Your task to perform on an android device: turn on javascript in the chrome app Image 0: 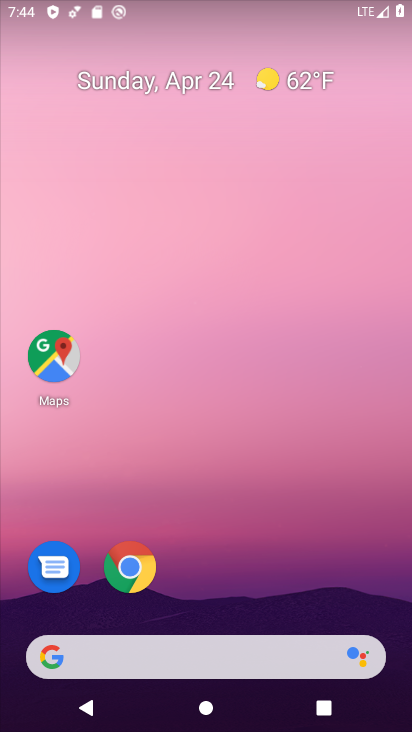
Step 0: click (128, 569)
Your task to perform on an android device: turn on javascript in the chrome app Image 1: 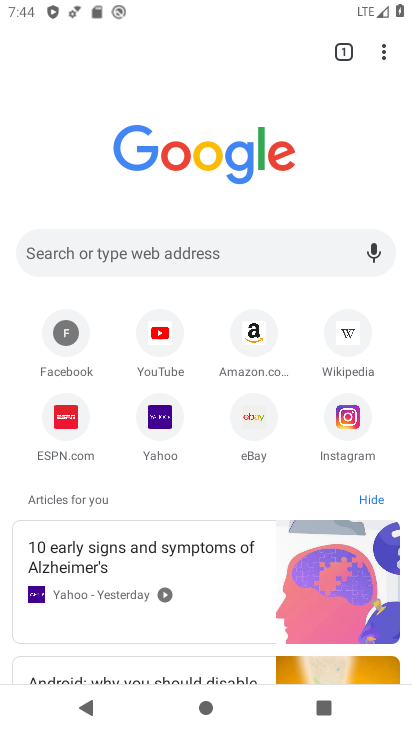
Step 1: click (384, 48)
Your task to perform on an android device: turn on javascript in the chrome app Image 2: 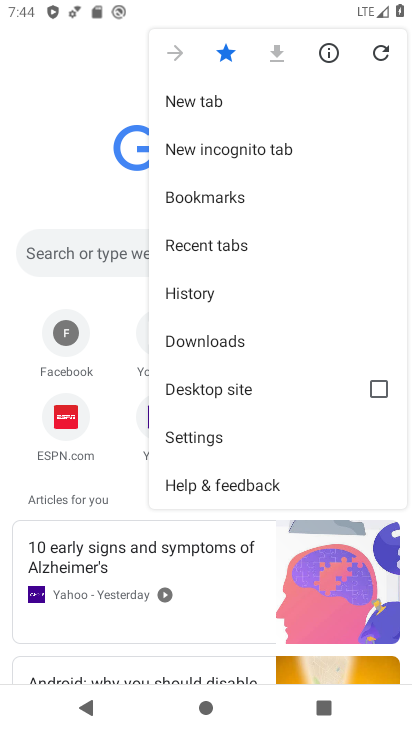
Step 2: click (204, 437)
Your task to perform on an android device: turn on javascript in the chrome app Image 3: 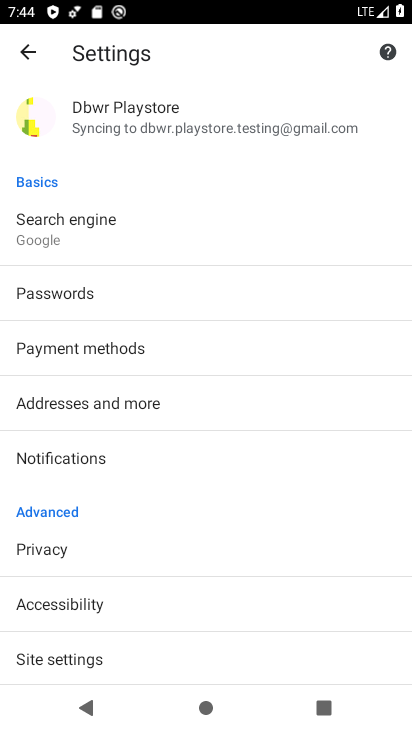
Step 3: click (51, 664)
Your task to perform on an android device: turn on javascript in the chrome app Image 4: 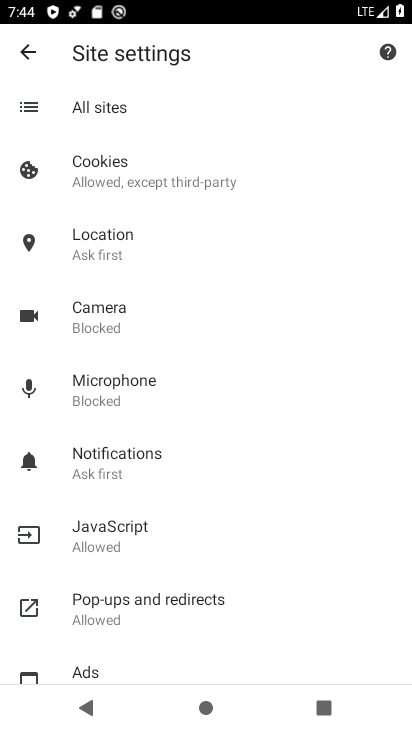
Step 4: click (106, 544)
Your task to perform on an android device: turn on javascript in the chrome app Image 5: 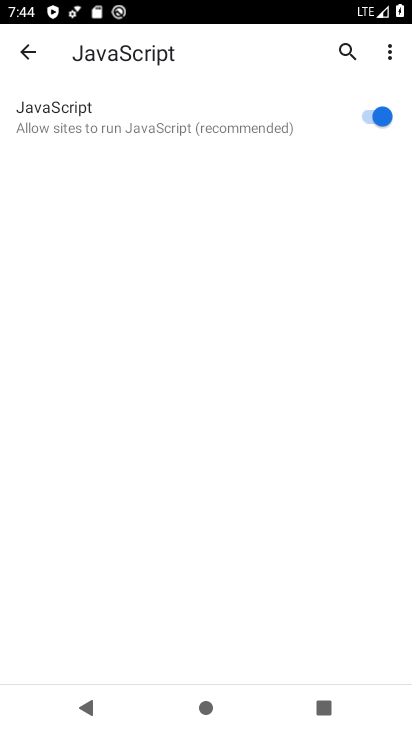
Step 5: task complete